Your task to perform on an android device: Go to settings Image 0: 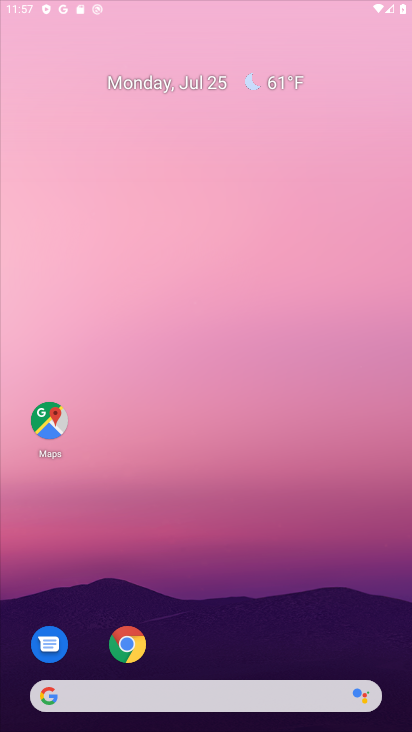
Step 0: press home button
Your task to perform on an android device: Go to settings Image 1: 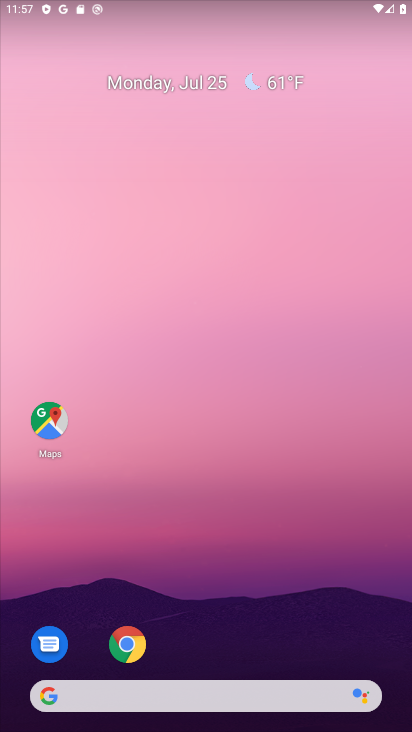
Step 1: drag from (221, 643) to (262, 8)
Your task to perform on an android device: Go to settings Image 2: 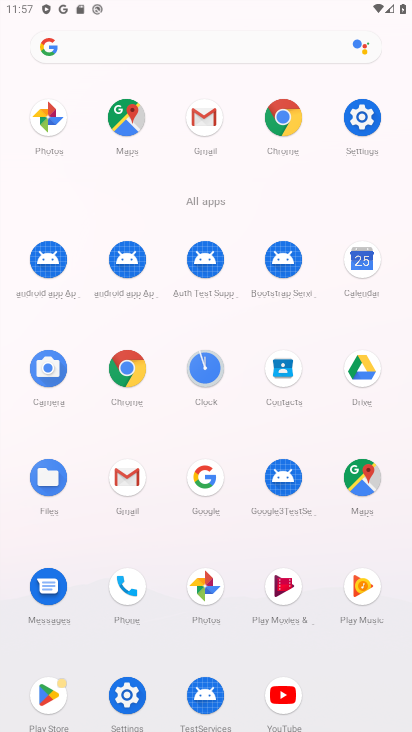
Step 2: click (360, 121)
Your task to perform on an android device: Go to settings Image 3: 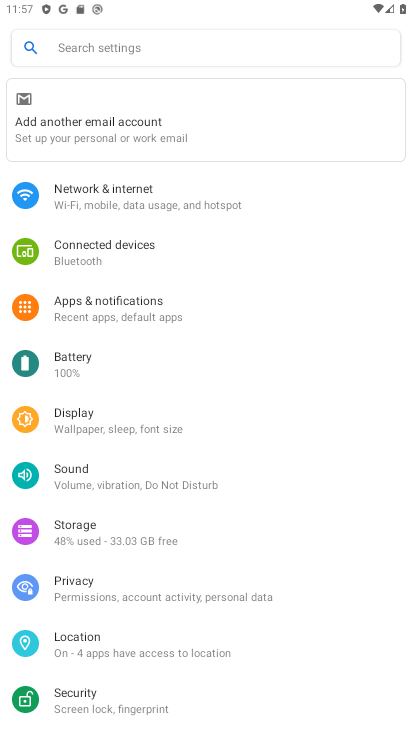
Step 3: task complete